Your task to perform on an android device: manage bookmarks in the chrome app Image 0: 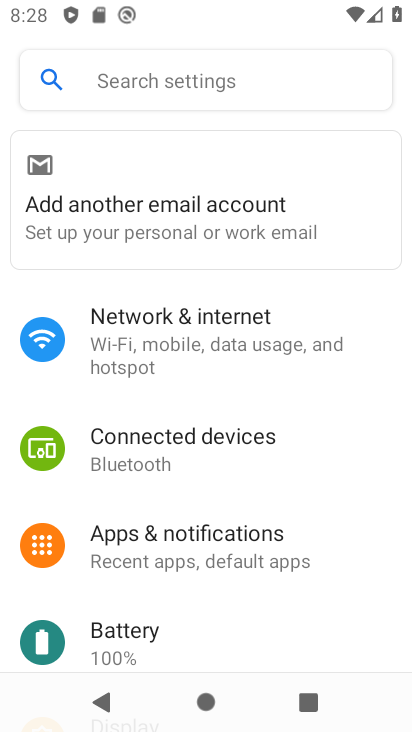
Step 0: press home button
Your task to perform on an android device: manage bookmarks in the chrome app Image 1: 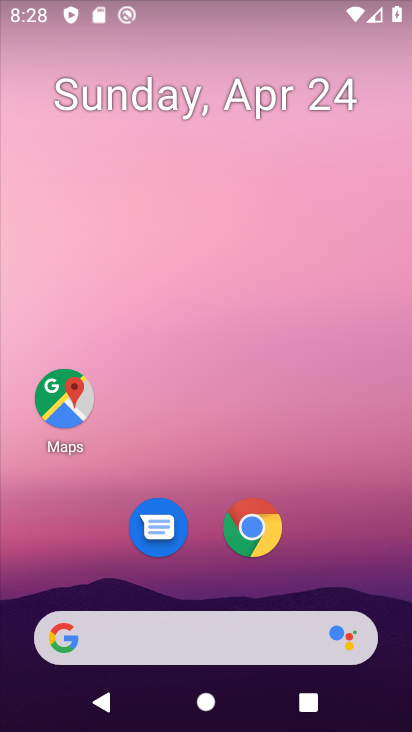
Step 1: click (257, 520)
Your task to perform on an android device: manage bookmarks in the chrome app Image 2: 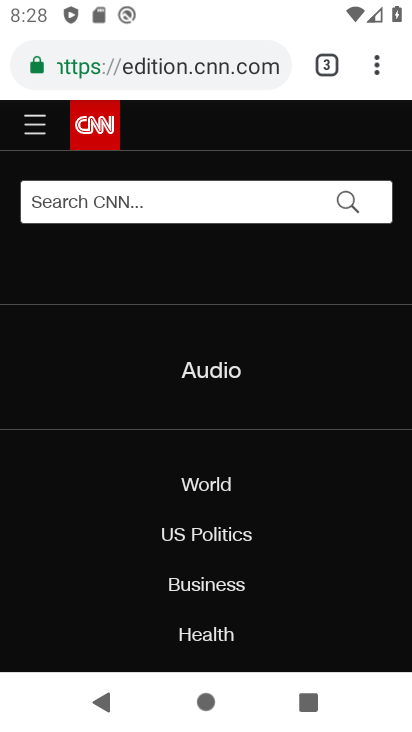
Step 2: click (379, 76)
Your task to perform on an android device: manage bookmarks in the chrome app Image 3: 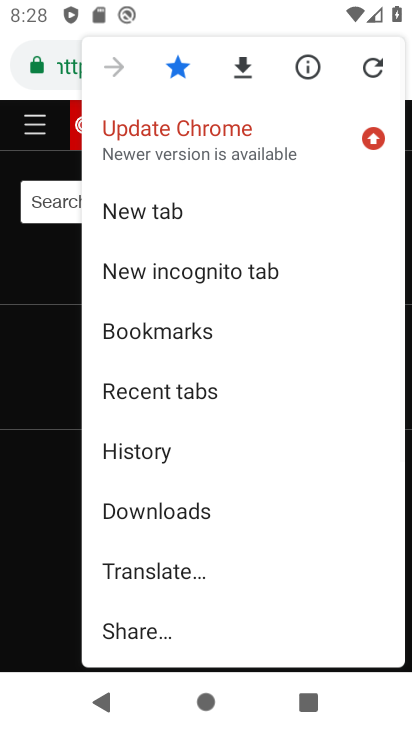
Step 3: drag from (254, 576) to (249, 431)
Your task to perform on an android device: manage bookmarks in the chrome app Image 4: 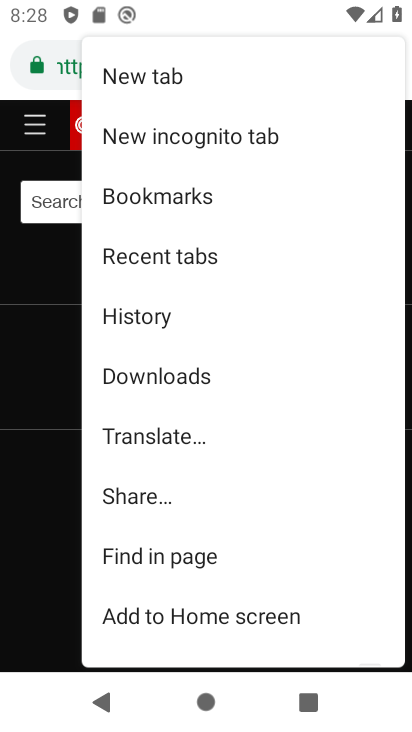
Step 4: click (217, 196)
Your task to perform on an android device: manage bookmarks in the chrome app Image 5: 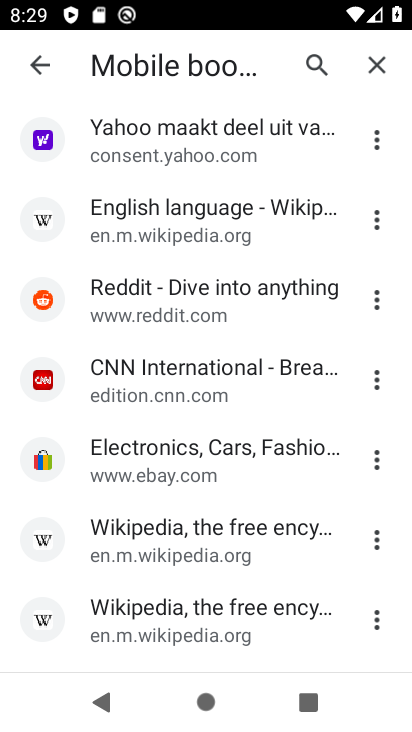
Step 5: click (376, 216)
Your task to perform on an android device: manage bookmarks in the chrome app Image 6: 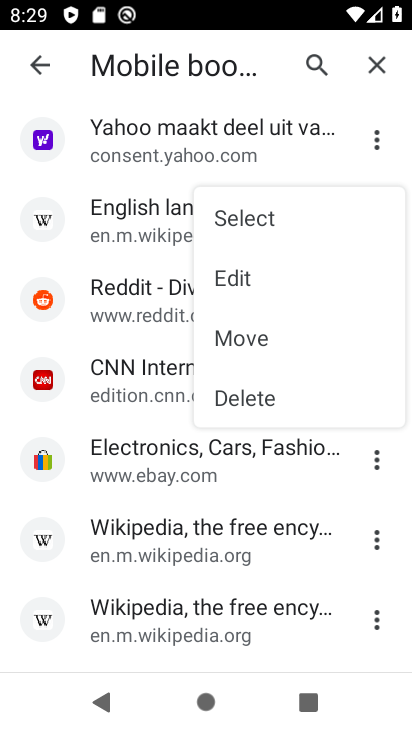
Step 6: click (228, 219)
Your task to perform on an android device: manage bookmarks in the chrome app Image 7: 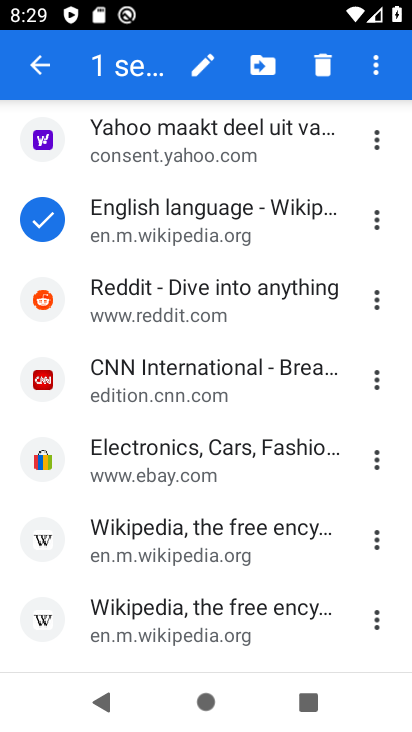
Step 7: drag from (197, 572) to (217, 196)
Your task to perform on an android device: manage bookmarks in the chrome app Image 8: 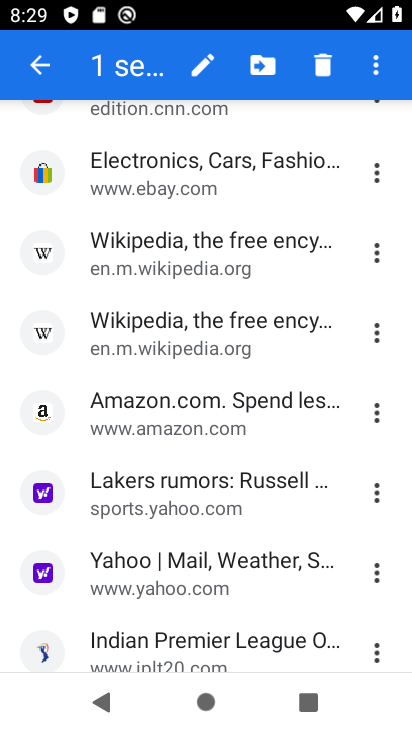
Step 8: click (46, 489)
Your task to perform on an android device: manage bookmarks in the chrome app Image 9: 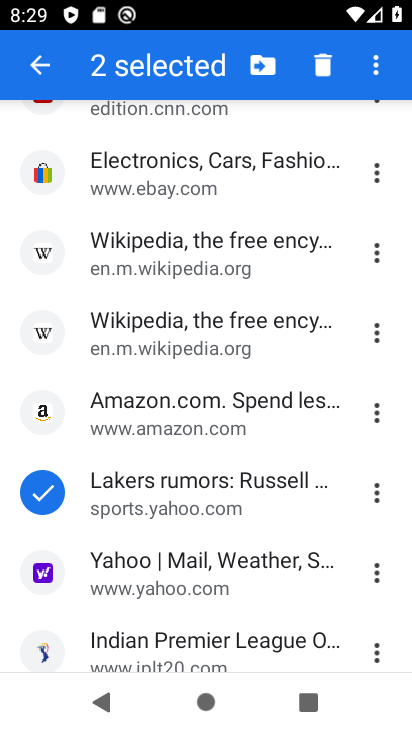
Step 9: click (49, 654)
Your task to perform on an android device: manage bookmarks in the chrome app Image 10: 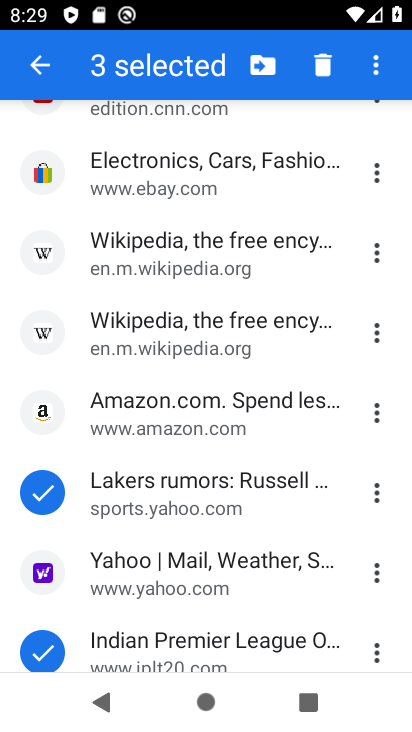
Step 10: drag from (238, 327) to (208, 627)
Your task to perform on an android device: manage bookmarks in the chrome app Image 11: 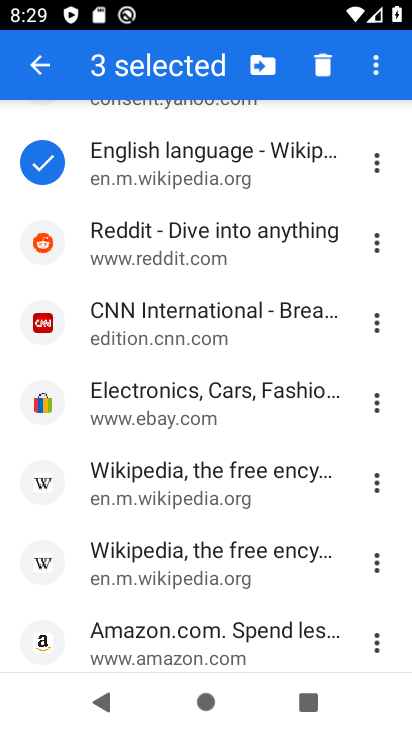
Step 11: click (327, 64)
Your task to perform on an android device: manage bookmarks in the chrome app Image 12: 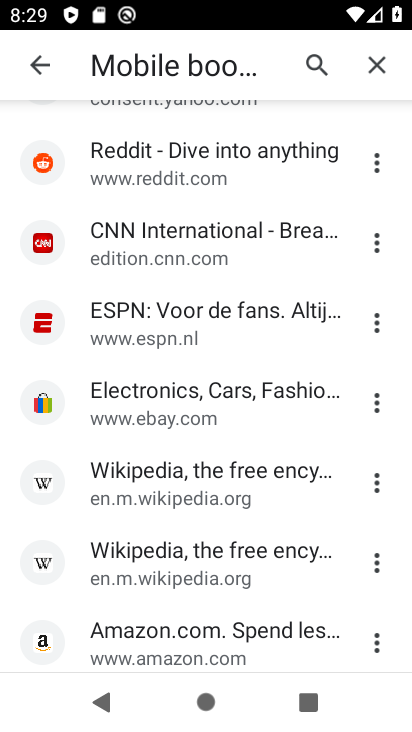
Step 12: task complete